Your task to perform on an android device: turn on data saver in the chrome app Image 0: 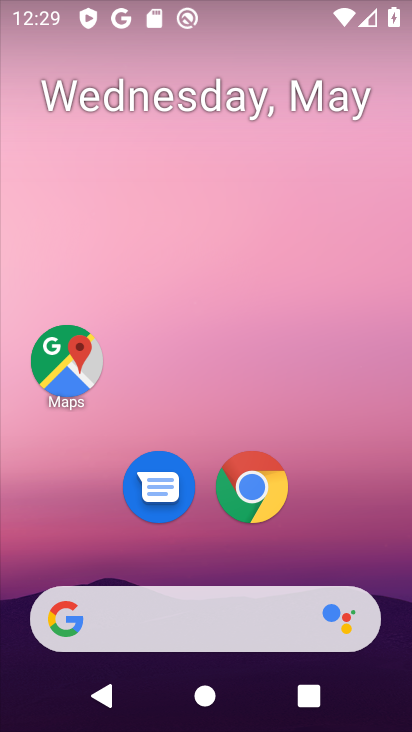
Step 0: click (248, 469)
Your task to perform on an android device: turn on data saver in the chrome app Image 1: 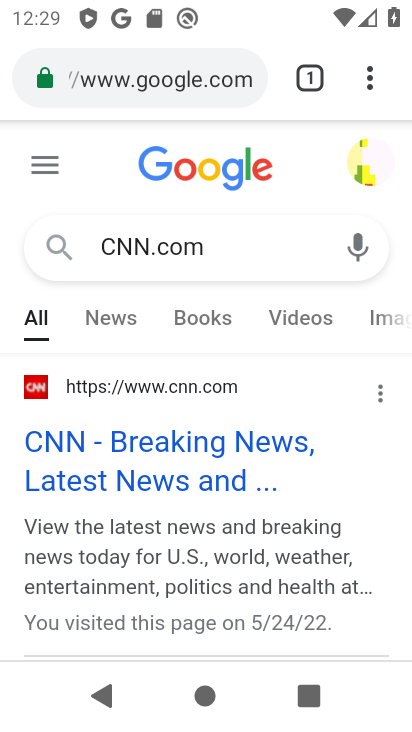
Step 1: click (366, 78)
Your task to perform on an android device: turn on data saver in the chrome app Image 2: 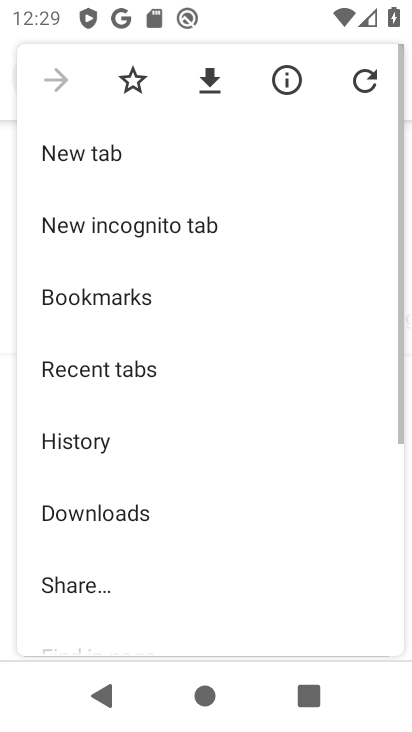
Step 2: drag from (103, 552) to (179, 173)
Your task to perform on an android device: turn on data saver in the chrome app Image 3: 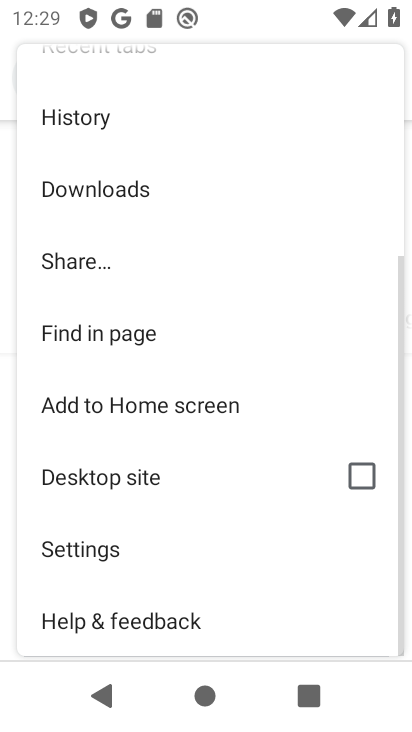
Step 3: click (86, 556)
Your task to perform on an android device: turn on data saver in the chrome app Image 4: 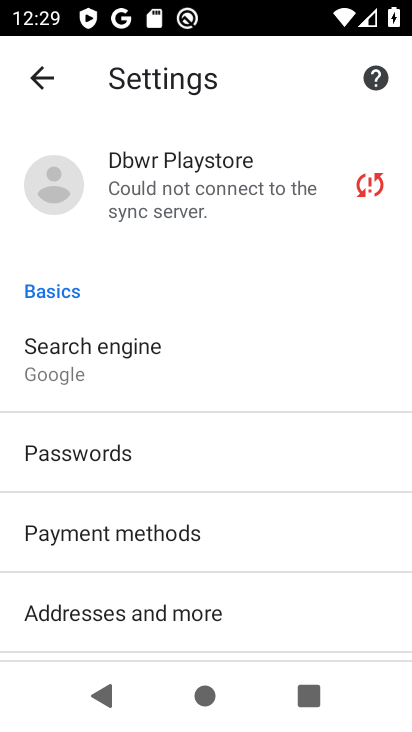
Step 4: drag from (97, 595) to (158, 294)
Your task to perform on an android device: turn on data saver in the chrome app Image 5: 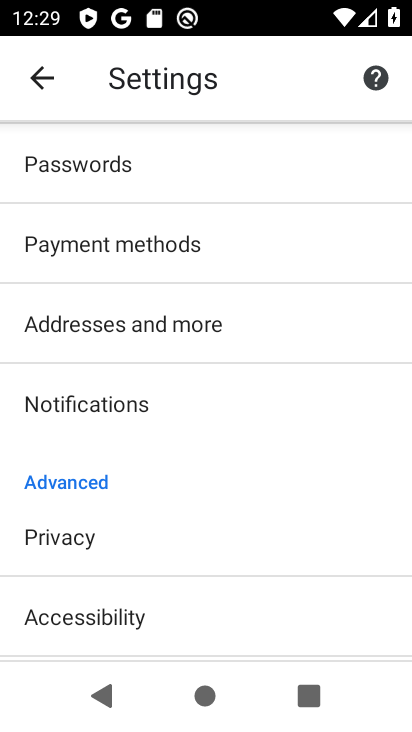
Step 5: drag from (133, 548) to (196, 338)
Your task to perform on an android device: turn on data saver in the chrome app Image 6: 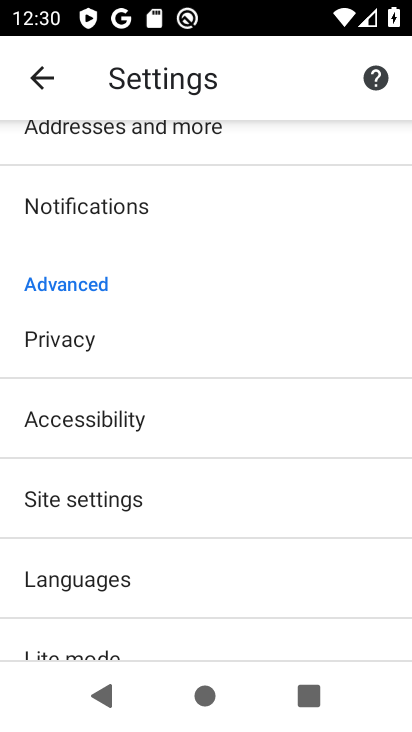
Step 6: drag from (104, 588) to (147, 445)
Your task to perform on an android device: turn on data saver in the chrome app Image 7: 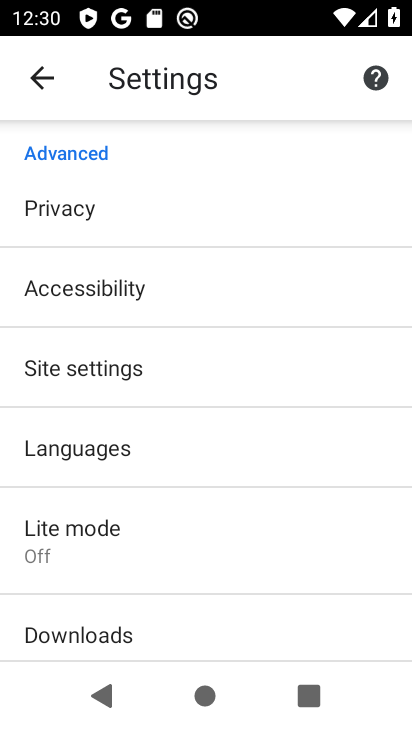
Step 7: click (109, 531)
Your task to perform on an android device: turn on data saver in the chrome app Image 8: 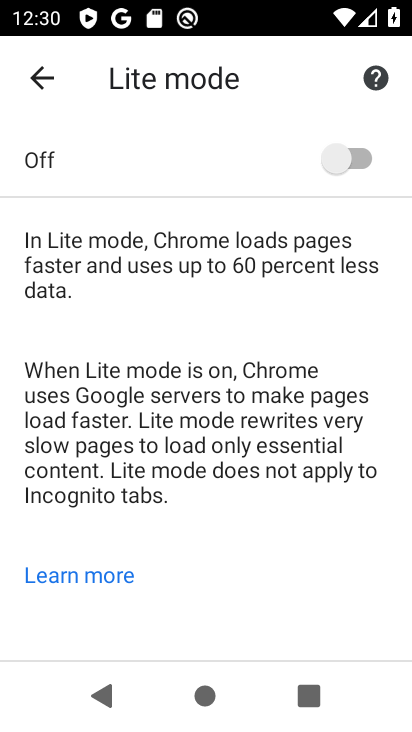
Step 8: click (361, 149)
Your task to perform on an android device: turn on data saver in the chrome app Image 9: 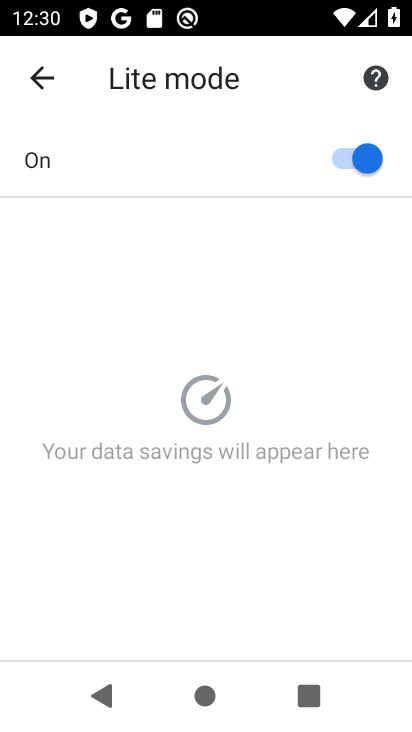
Step 9: task complete